Your task to perform on an android device: stop showing notifications on the lock screen Image 0: 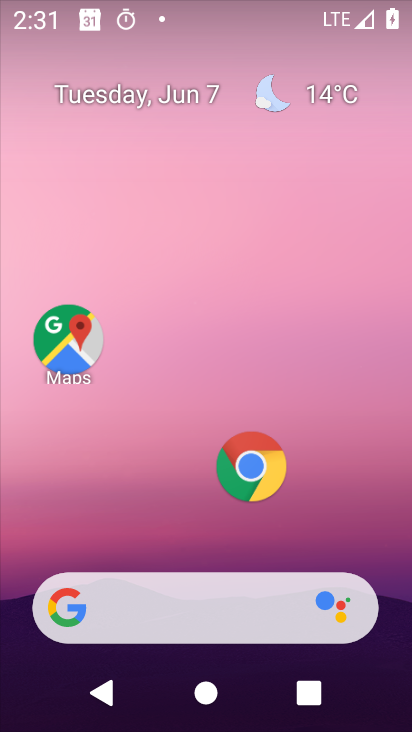
Step 0: drag from (142, 729) to (149, 145)
Your task to perform on an android device: stop showing notifications on the lock screen Image 1: 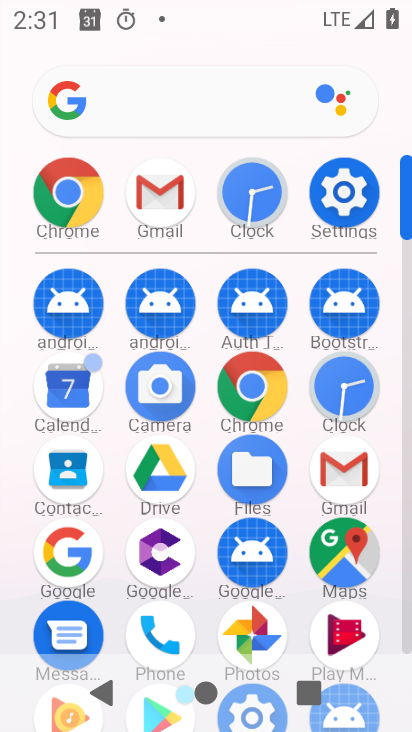
Step 1: click (325, 201)
Your task to perform on an android device: stop showing notifications on the lock screen Image 2: 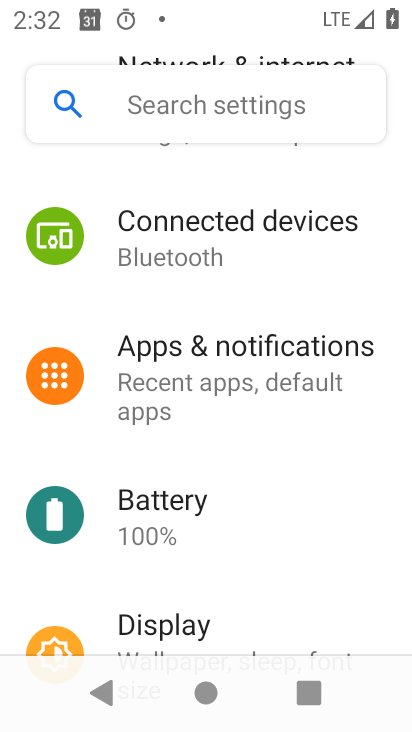
Step 2: click (219, 382)
Your task to perform on an android device: stop showing notifications on the lock screen Image 3: 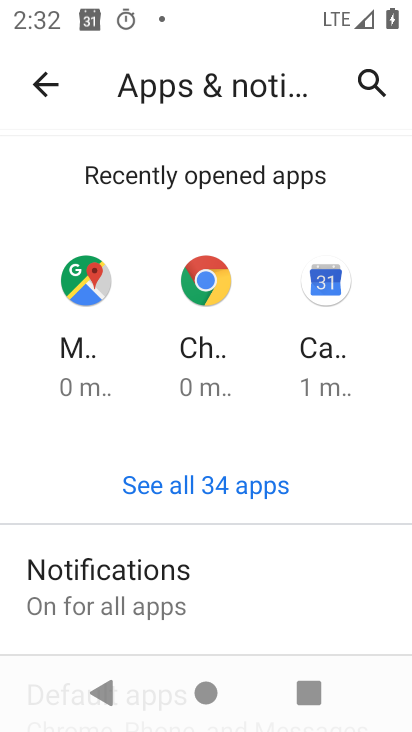
Step 3: click (209, 601)
Your task to perform on an android device: stop showing notifications on the lock screen Image 4: 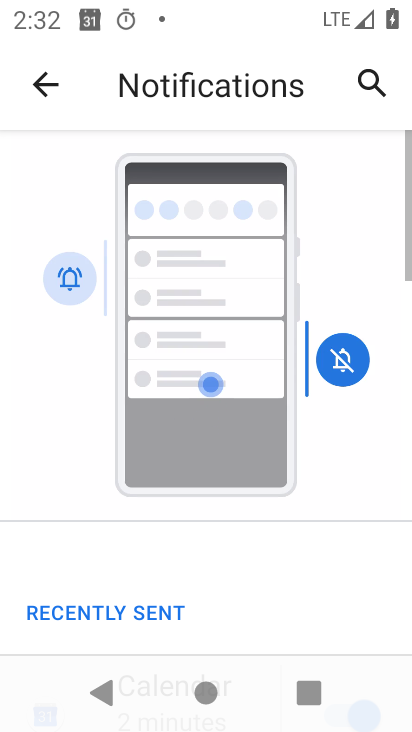
Step 4: drag from (243, 552) to (325, 303)
Your task to perform on an android device: stop showing notifications on the lock screen Image 5: 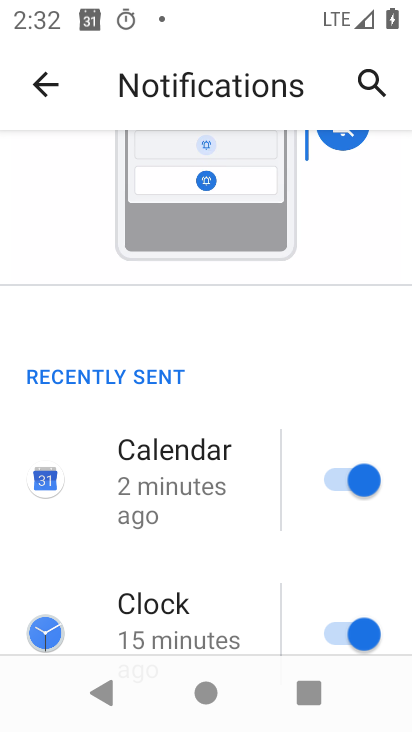
Step 5: drag from (235, 607) to (240, 343)
Your task to perform on an android device: stop showing notifications on the lock screen Image 6: 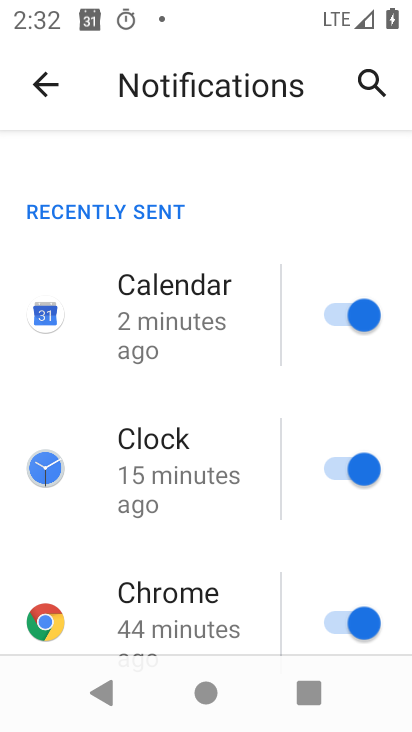
Step 6: drag from (170, 617) to (213, 271)
Your task to perform on an android device: stop showing notifications on the lock screen Image 7: 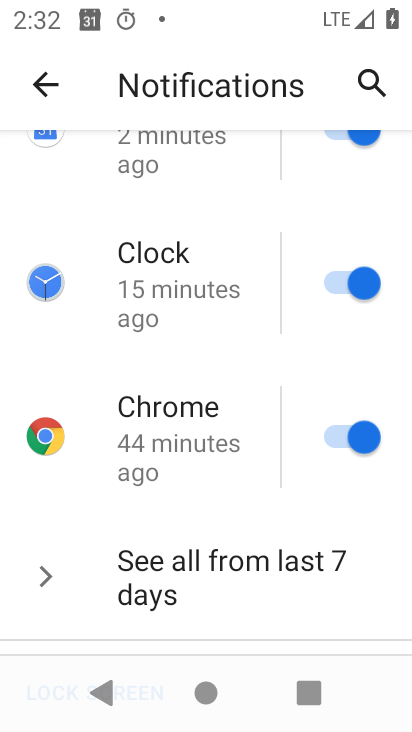
Step 7: drag from (185, 595) to (186, 277)
Your task to perform on an android device: stop showing notifications on the lock screen Image 8: 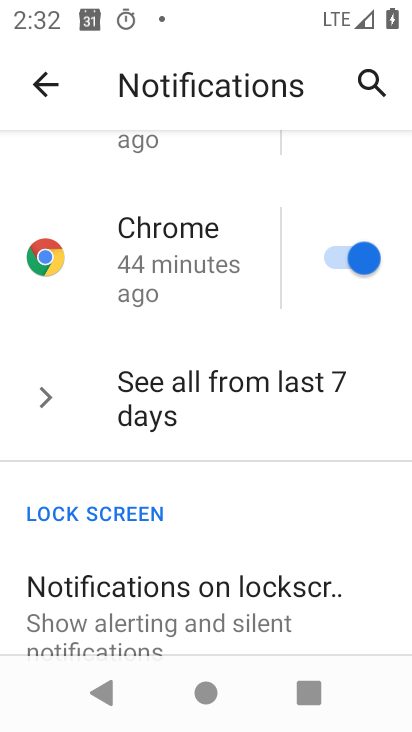
Step 8: click (187, 603)
Your task to perform on an android device: stop showing notifications on the lock screen Image 9: 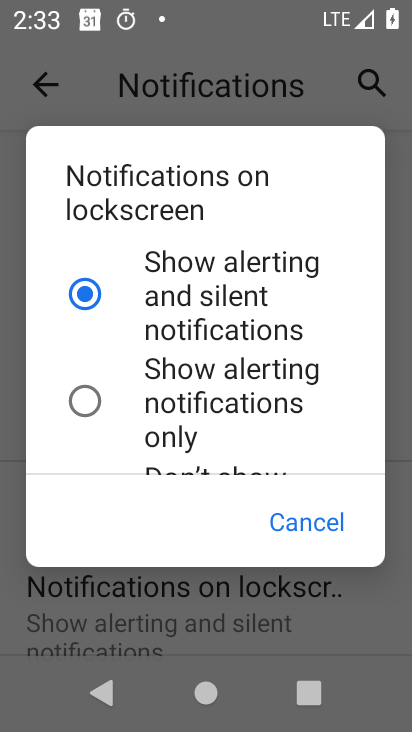
Step 9: task complete